Your task to perform on an android device: Open Chrome and go to settings Image 0: 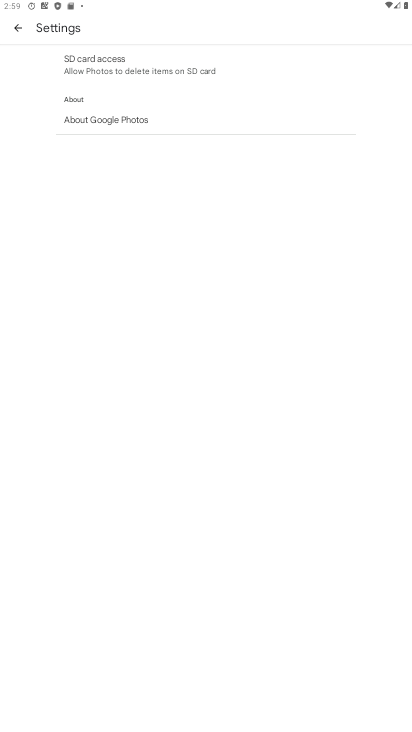
Step 0: press home button
Your task to perform on an android device: Open Chrome and go to settings Image 1: 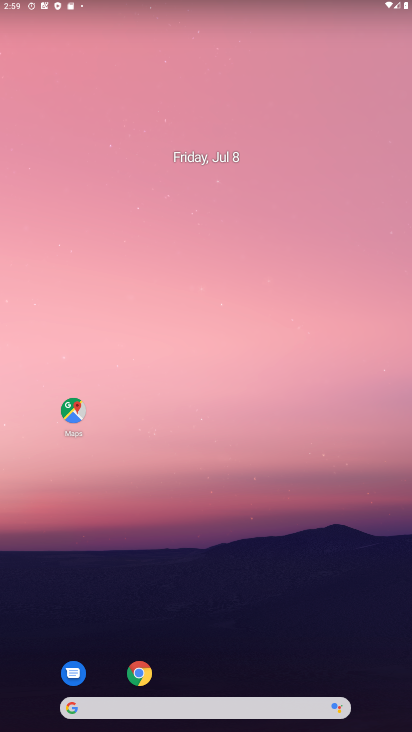
Step 1: drag from (180, 672) to (211, 361)
Your task to perform on an android device: Open Chrome and go to settings Image 2: 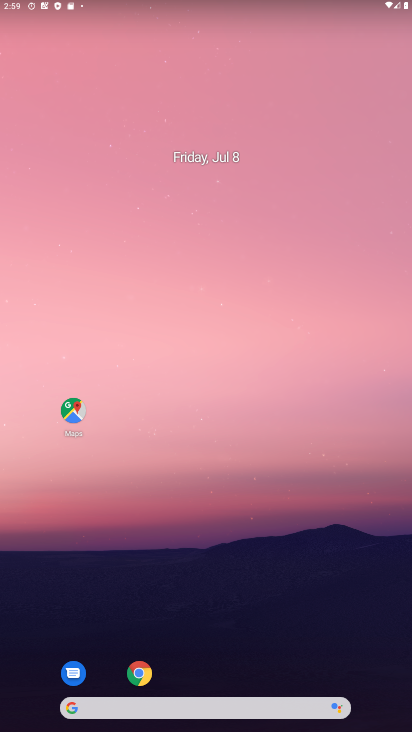
Step 2: click (140, 685)
Your task to perform on an android device: Open Chrome and go to settings Image 3: 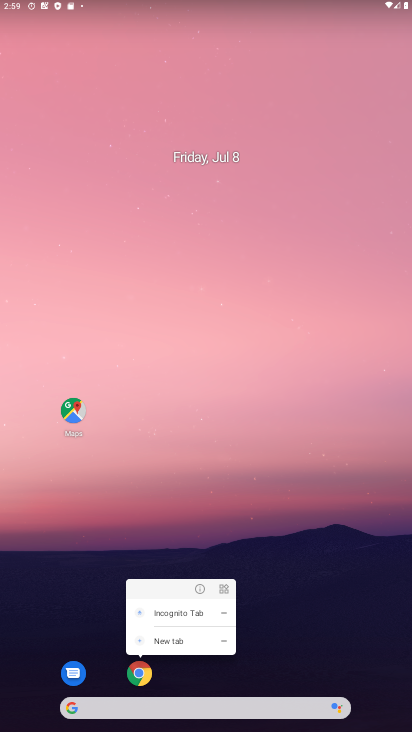
Step 3: click (134, 676)
Your task to perform on an android device: Open Chrome and go to settings Image 4: 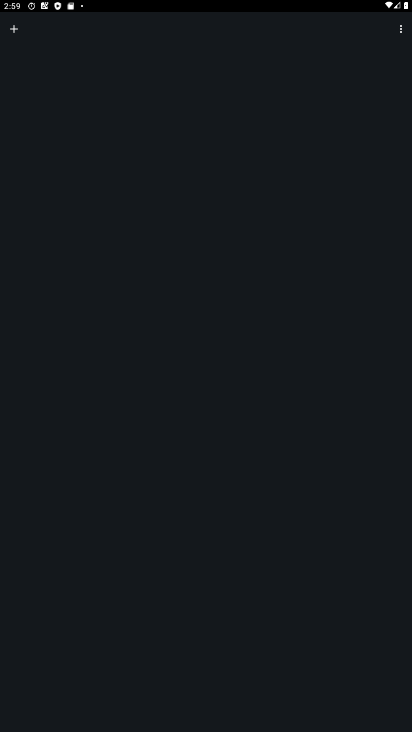
Step 4: click (17, 36)
Your task to perform on an android device: Open Chrome and go to settings Image 5: 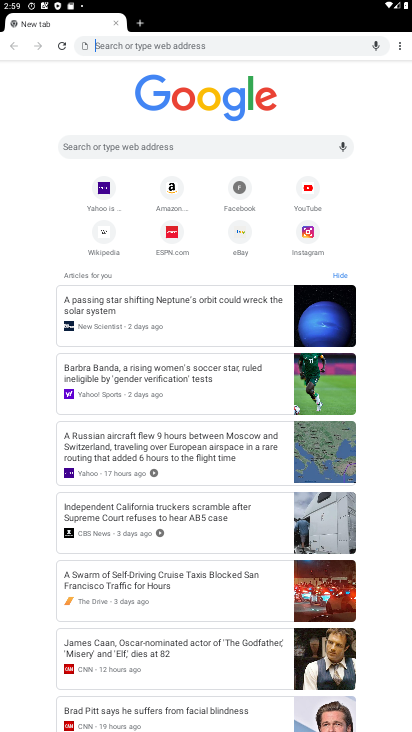
Step 5: click (399, 51)
Your task to perform on an android device: Open Chrome and go to settings Image 6: 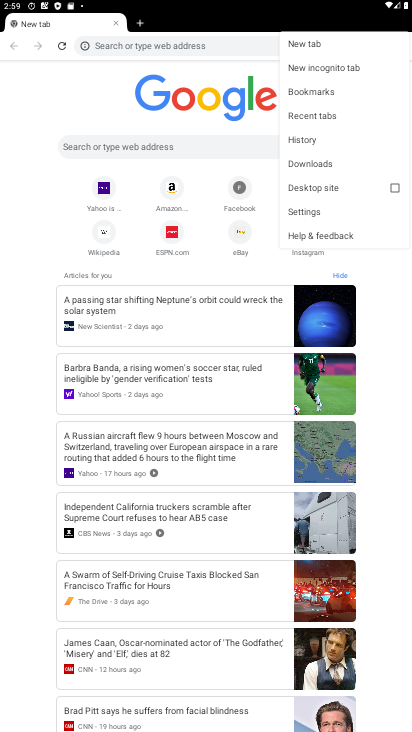
Step 6: click (324, 207)
Your task to perform on an android device: Open Chrome and go to settings Image 7: 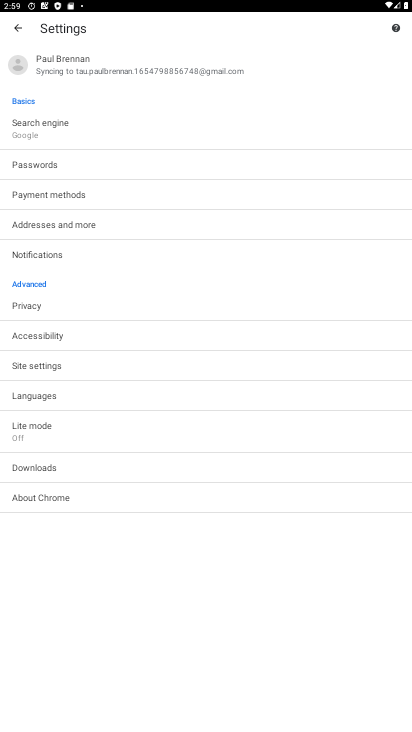
Step 7: task complete